Your task to perform on an android device: check out phone information Image 0: 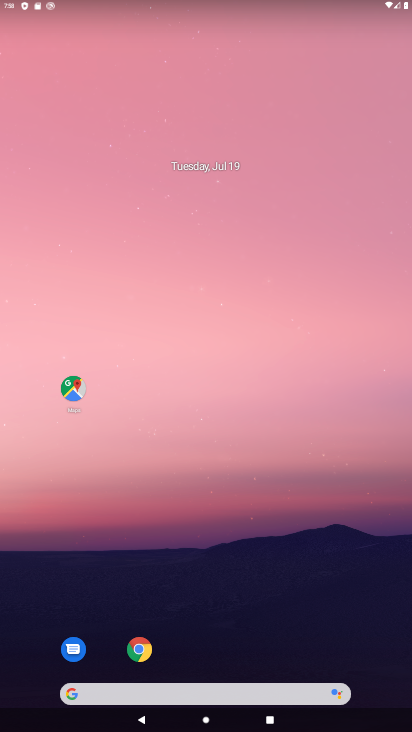
Step 0: press home button
Your task to perform on an android device: check out phone information Image 1: 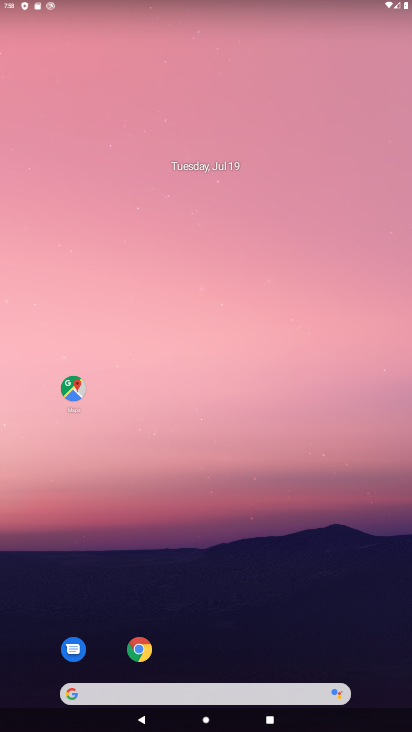
Step 1: drag from (212, 657) to (213, 81)
Your task to perform on an android device: check out phone information Image 2: 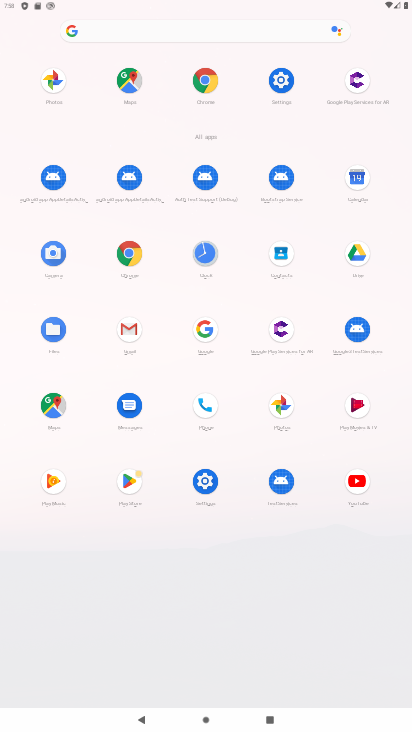
Step 2: click (287, 81)
Your task to perform on an android device: check out phone information Image 3: 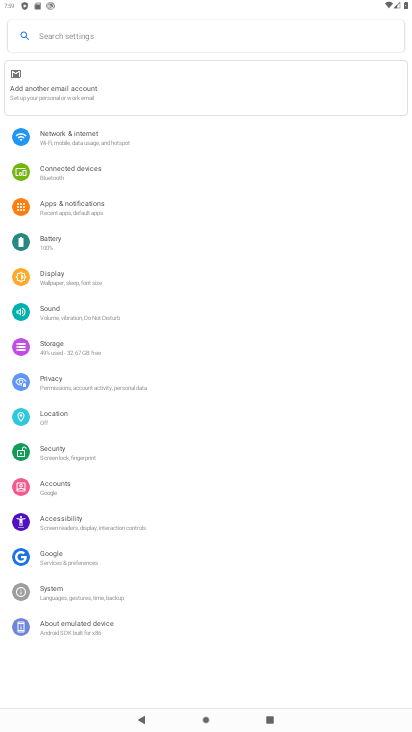
Step 3: click (76, 618)
Your task to perform on an android device: check out phone information Image 4: 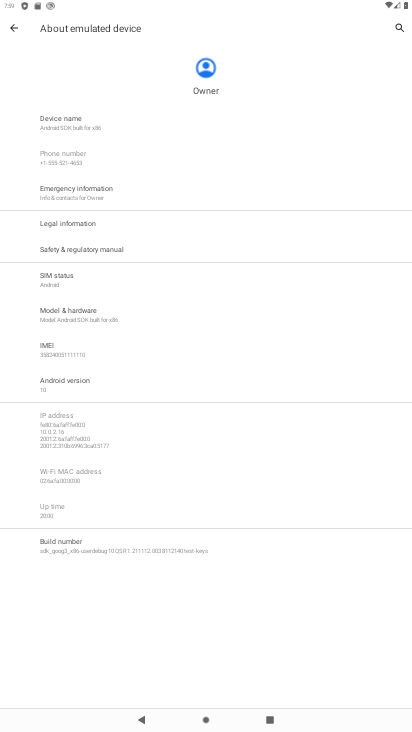
Step 4: task complete